Your task to perform on an android device: Open eBay Image 0: 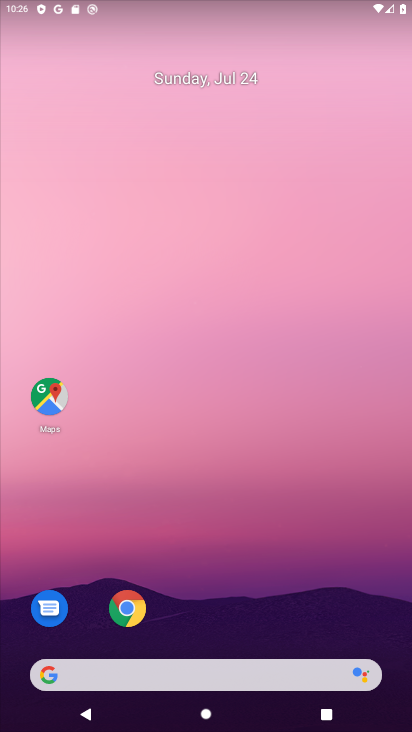
Step 0: click (119, 597)
Your task to perform on an android device: Open eBay Image 1: 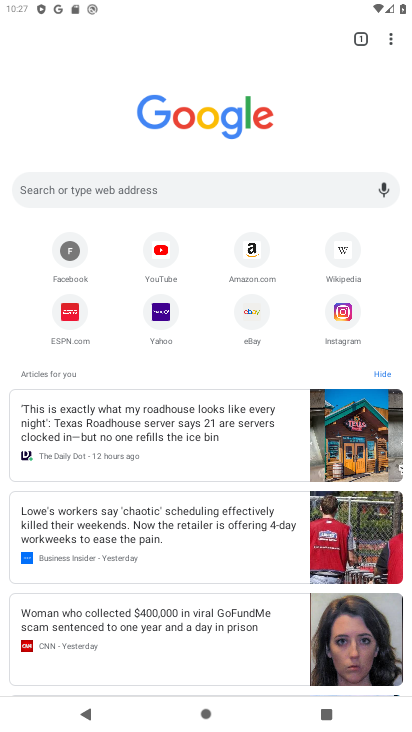
Step 1: click (244, 308)
Your task to perform on an android device: Open eBay Image 2: 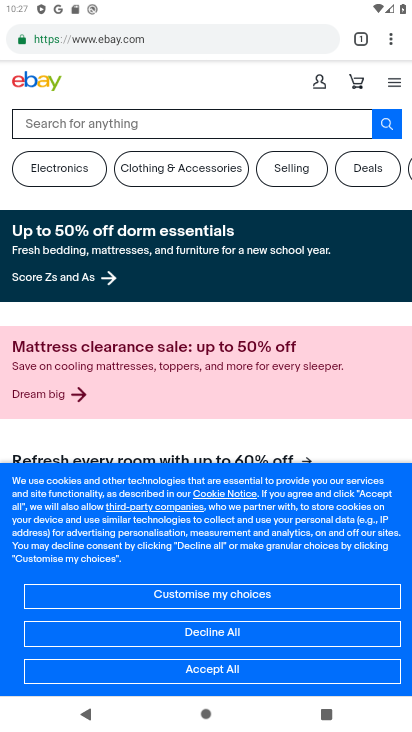
Step 2: click (196, 674)
Your task to perform on an android device: Open eBay Image 3: 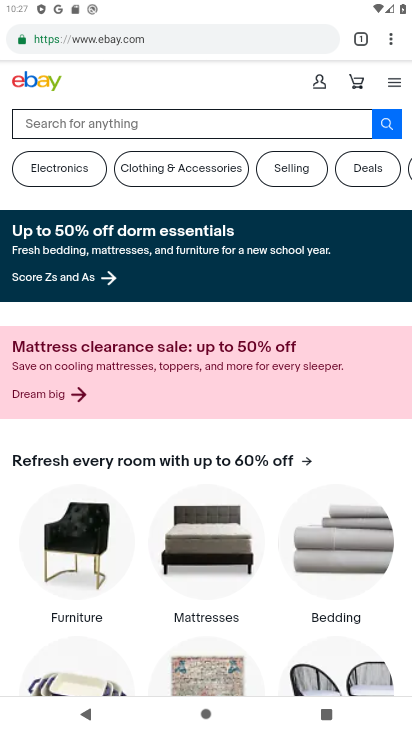
Step 3: task complete